Your task to perform on an android device: set default search engine in the chrome app Image 0: 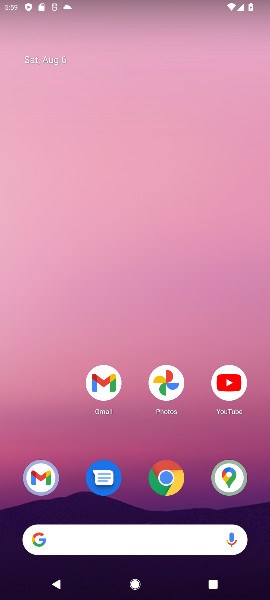
Step 0: click (157, 477)
Your task to perform on an android device: set default search engine in the chrome app Image 1: 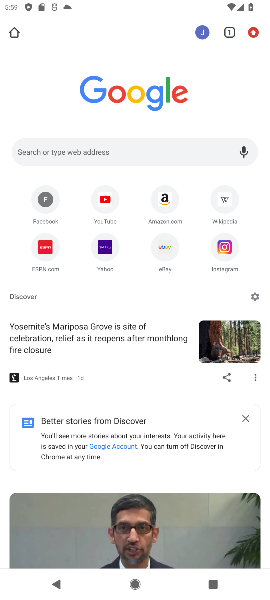
Step 1: drag from (253, 30) to (159, 313)
Your task to perform on an android device: set default search engine in the chrome app Image 2: 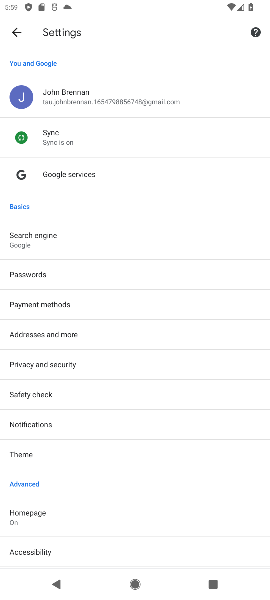
Step 2: click (30, 238)
Your task to perform on an android device: set default search engine in the chrome app Image 3: 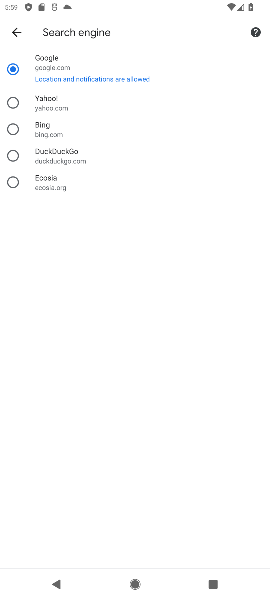
Step 3: click (18, 122)
Your task to perform on an android device: set default search engine in the chrome app Image 4: 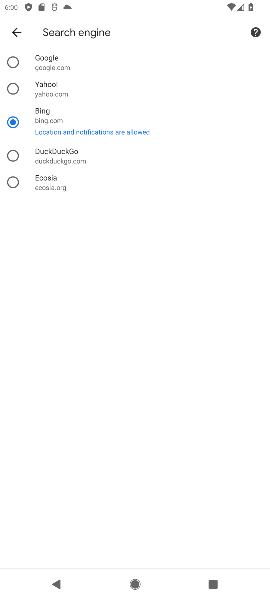
Step 4: task complete